Your task to perform on an android device: turn off location Image 0: 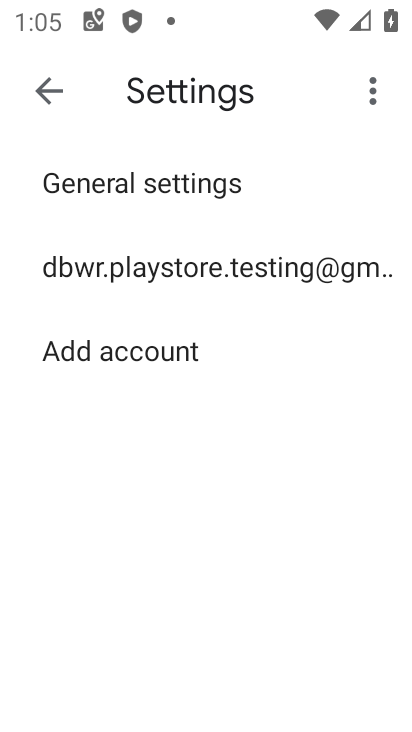
Step 0: press home button
Your task to perform on an android device: turn off location Image 1: 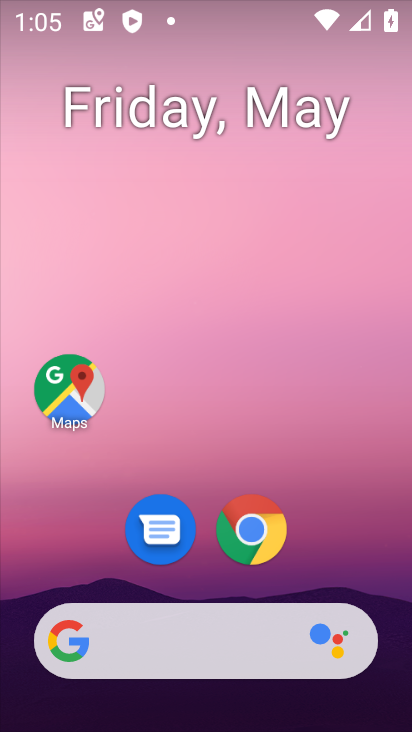
Step 1: drag from (331, 556) to (304, 183)
Your task to perform on an android device: turn off location Image 2: 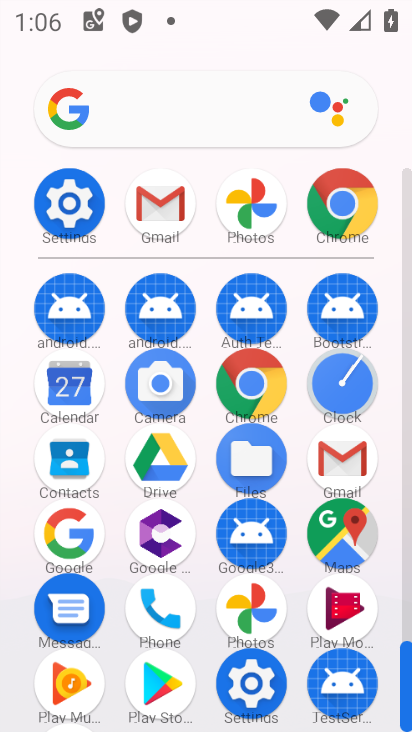
Step 2: click (58, 206)
Your task to perform on an android device: turn off location Image 3: 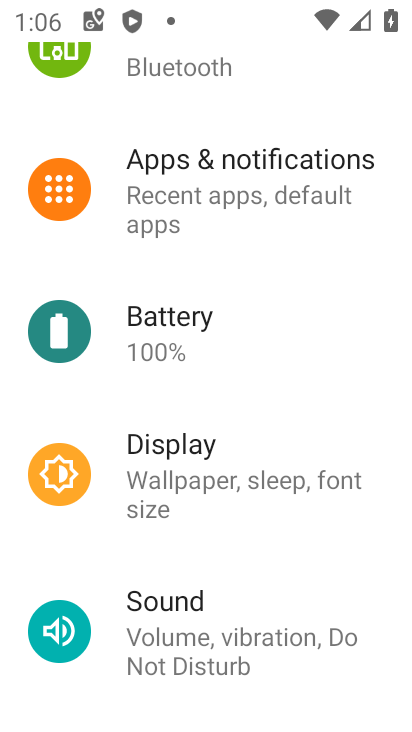
Step 3: drag from (261, 211) to (334, 730)
Your task to perform on an android device: turn off location Image 4: 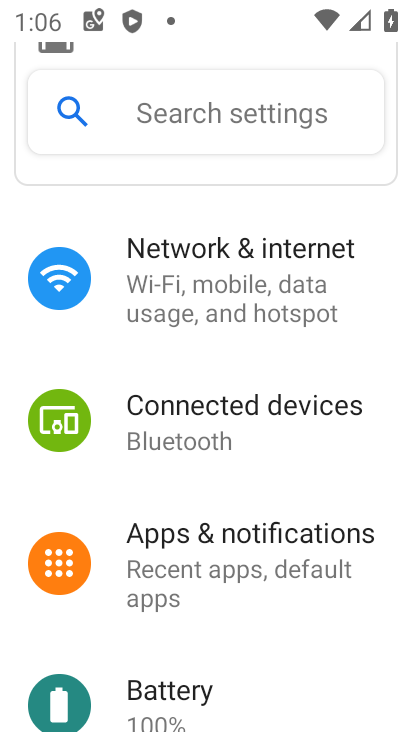
Step 4: drag from (241, 626) to (213, 144)
Your task to perform on an android device: turn off location Image 5: 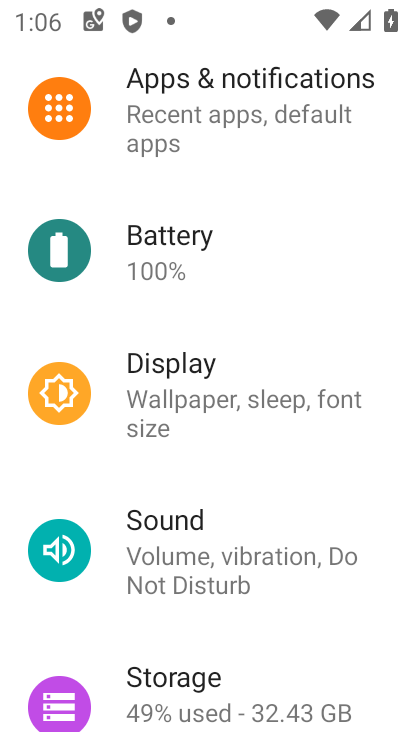
Step 5: drag from (207, 632) to (207, 333)
Your task to perform on an android device: turn off location Image 6: 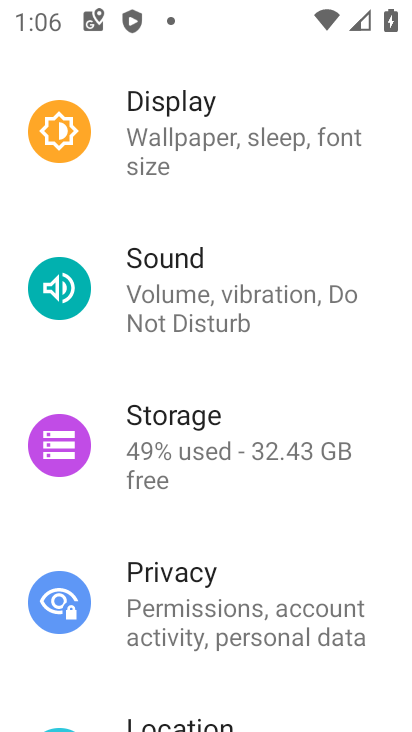
Step 6: click (202, 683)
Your task to perform on an android device: turn off location Image 7: 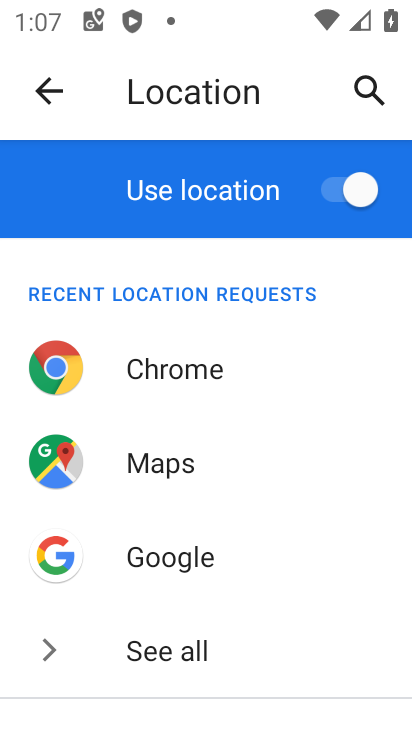
Step 7: click (340, 217)
Your task to perform on an android device: turn off location Image 8: 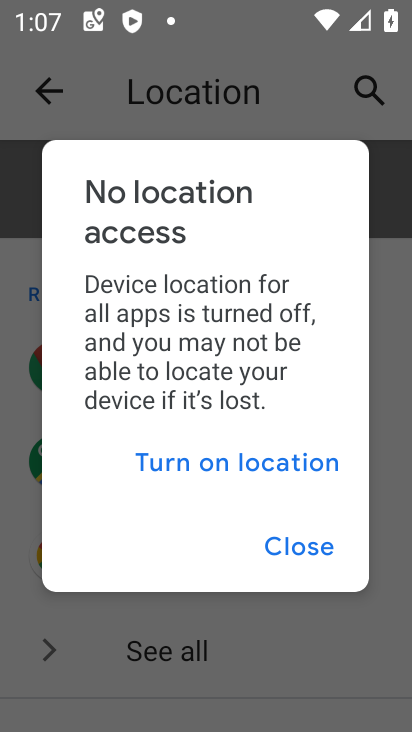
Step 8: press home button
Your task to perform on an android device: turn off location Image 9: 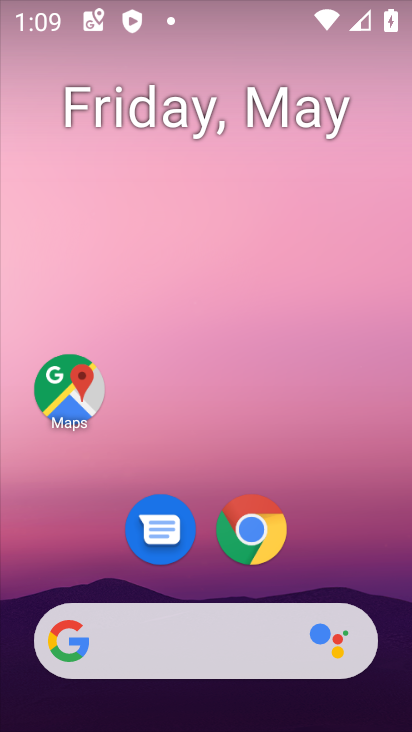
Step 9: drag from (362, 533) to (37, 15)
Your task to perform on an android device: turn off location Image 10: 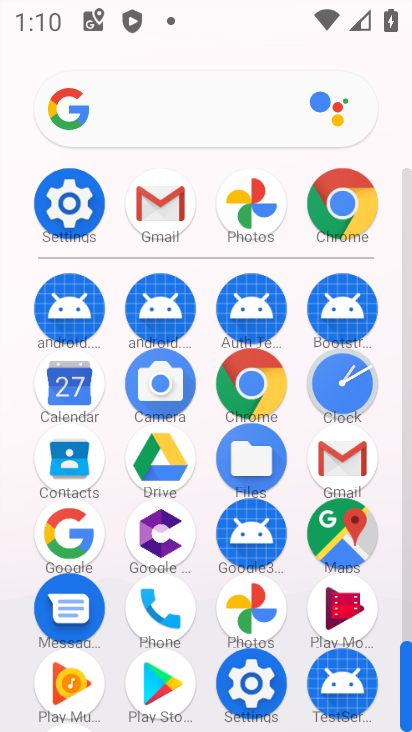
Step 10: click (44, 212)
Your task to perform on an android device: turn off location Image 11: 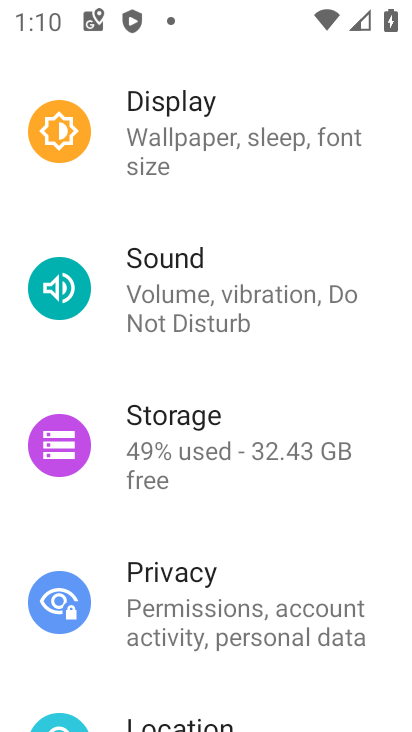
Step 11: drag from (154, 238) to (150, 724)
Your task to perform on an android device: turn off location Image 12: 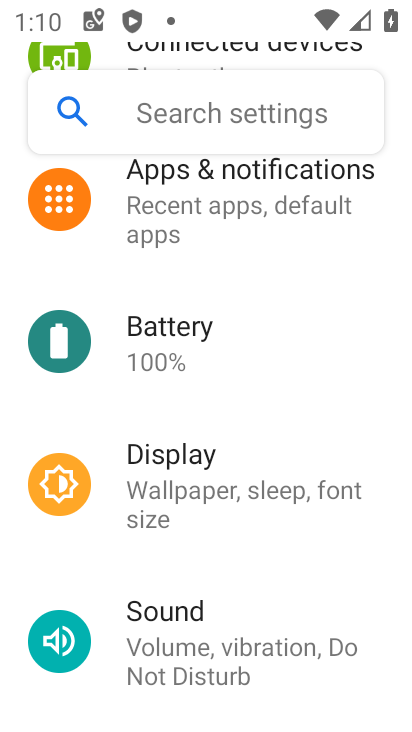
Step 12: drag from (294, 286) to (214, 555)
Your task to perform on an android device: turn off location Image 13: 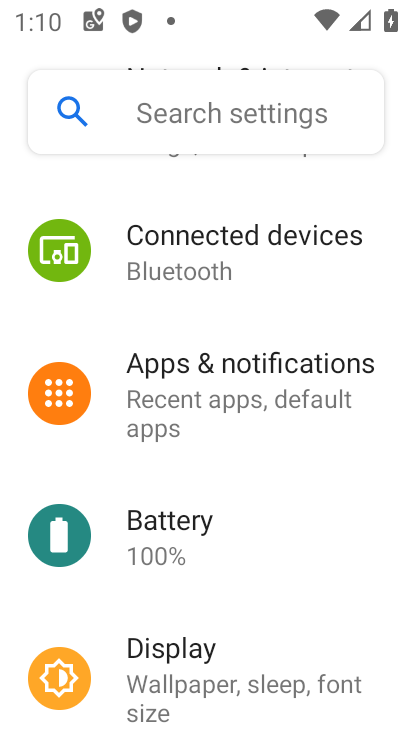
Step 13: click (210, 405)
Your task to perform on an android device: turn off location Image 14: 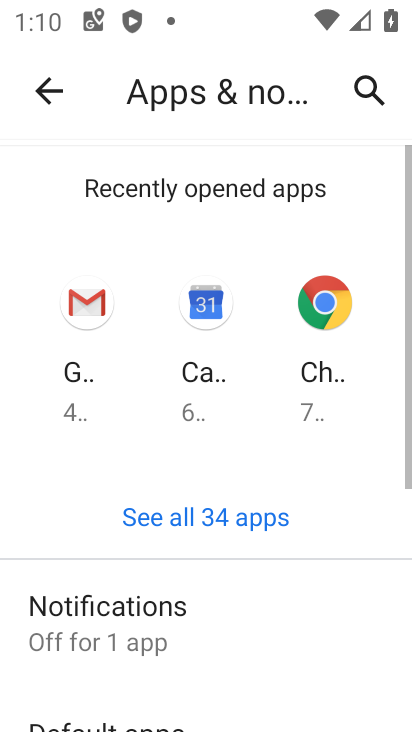
Step 14: task complete